Your task to perform on an android device: Go to Google Image 0: 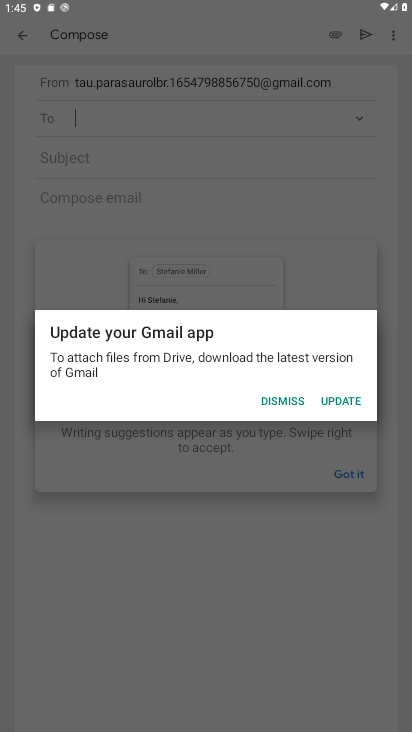
Step 0: press home button
Your task to perform on an android device: Go to Google Image 1: 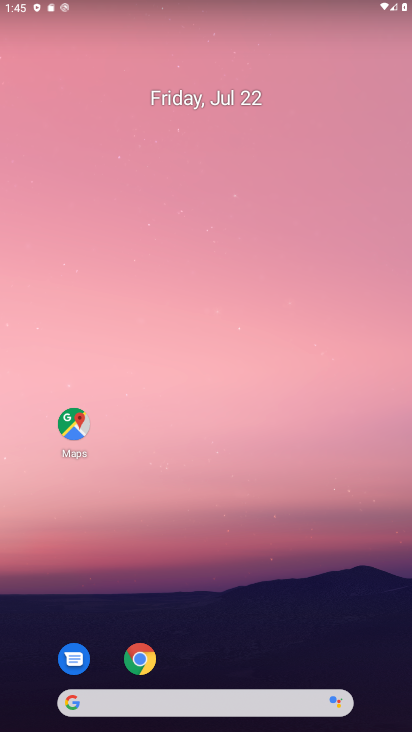
Step 1: drag from (315, 620) to (206, 152)
Your task to perform on an android device: Go to Google Image 2: 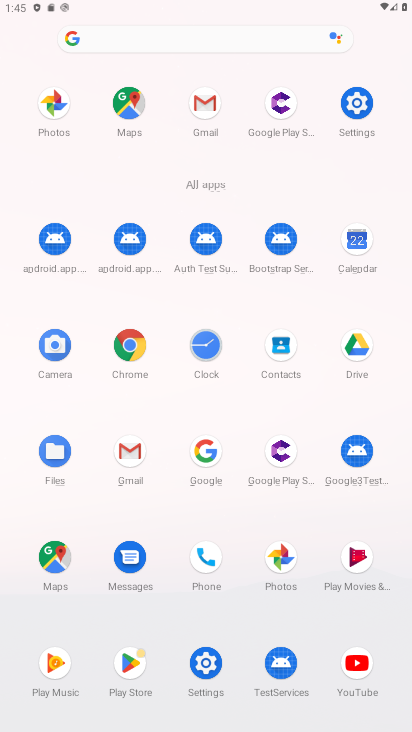
Step 2: click (208, 450)
Your task to perform on an android device: Go to Google Image 3: 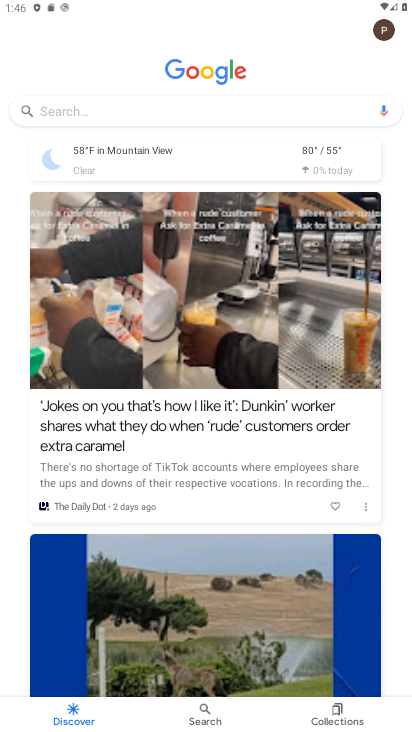
Step 3: task complete